Your task to perform on an android device: turn on translation in the chrome app Image 0: 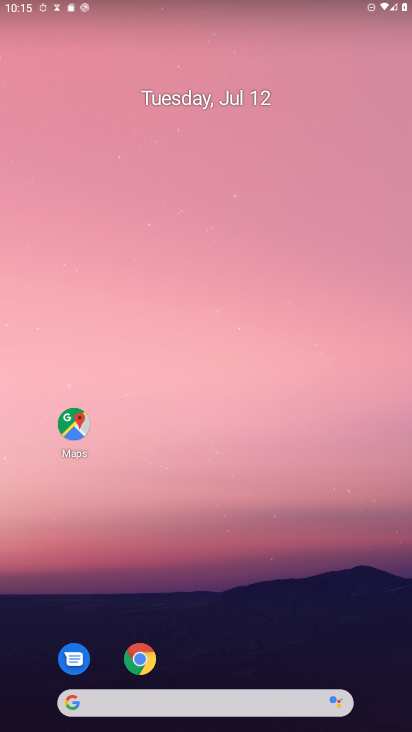
Step 0: click (141, 659)
Your task to perform on an android device: turn on translation in the chrome app Image 1: 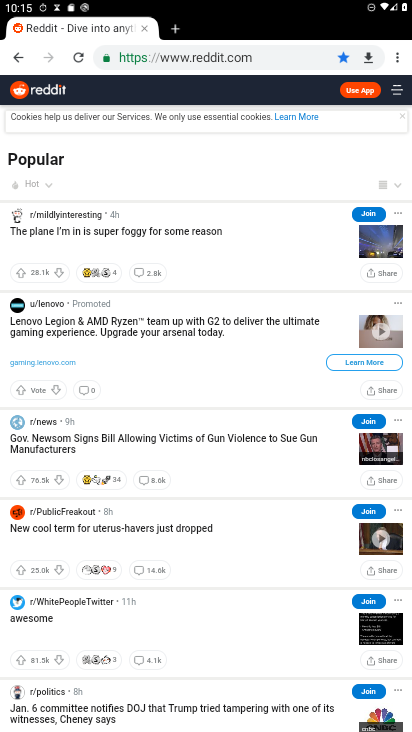
Step 1: click (398, 56)
Your task to perform on an android device: turn on translation in the chrome app Image 2: 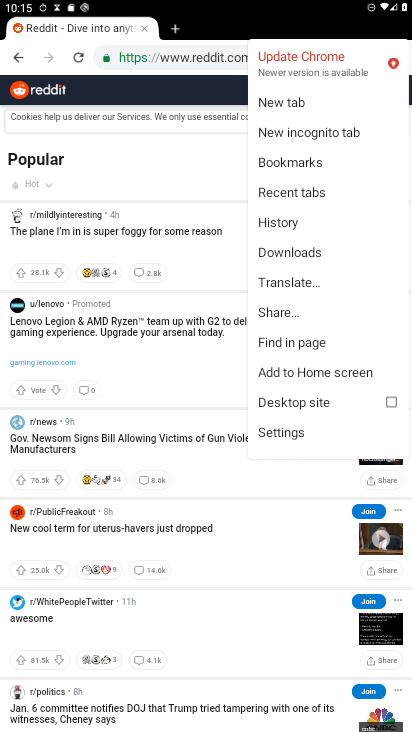
Step 2: click (284, 429)
Your task to perform on an android device: turn on translation in the chrome app Image 3: 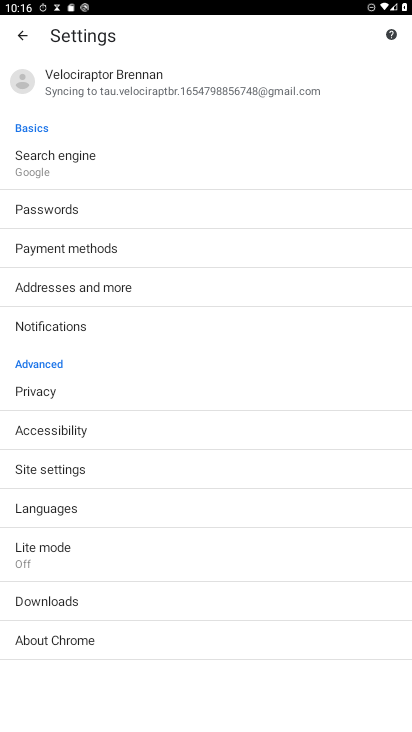
Step 3: click (49, 508)
Your task to perform on an android device: turn on translation in the chrome app Image 4: 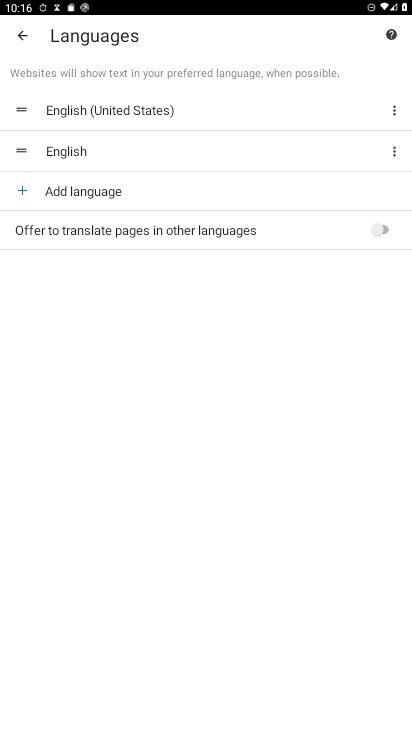
Step 4: click (383, 228)
Your task to perform on an android device: turn on translation in the chrome app Image 5: 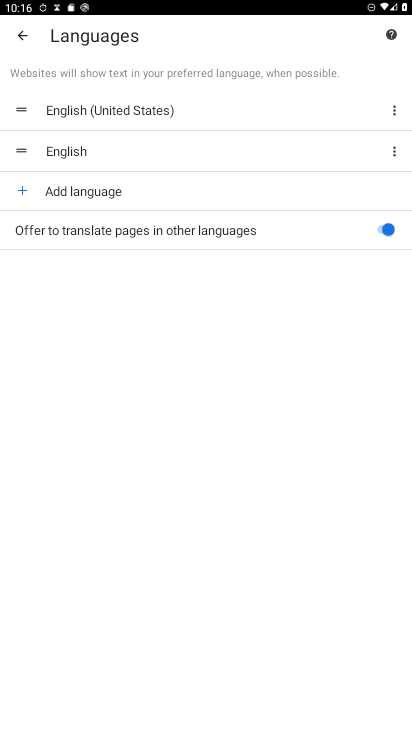
Step 5: task complete